Your task to perform on an android device: View the shopping cart on newegg.com. Add "razer blade" to the cart on newegg.com, then select checkout. Image 0: 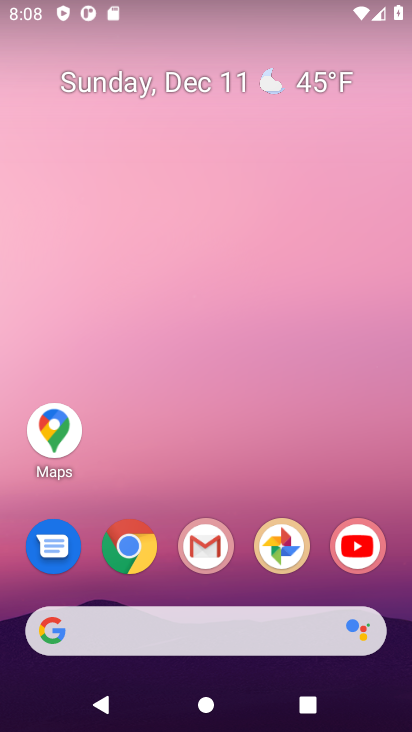
Step 0: click (133, 554)
Your task to perform on an android device: View the shopping cart on newegg.com. Add "razer blade" to the cart on newegg.com, then select checkout. Image 1: 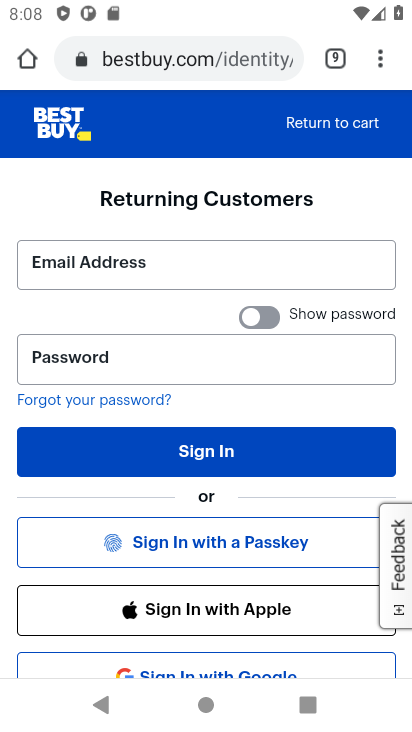
Step 1: click (155, 59)
Your task to perform on an android device: View the shopping cart on newegg.com. Add "razer blade" to the cart on newegg.com, then select checkout. Image 2: 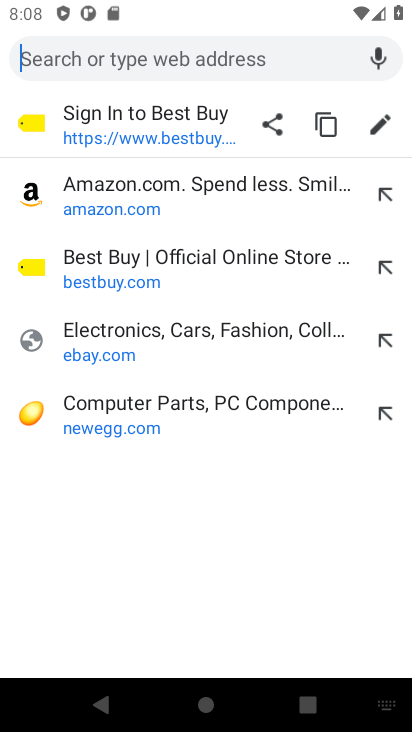
Step 2: click (98, 416)
Your task to perform on an android device: View the shopping cart on newegg.com. Add "razer blade" to the cart on newegg.com, then select checkout. Image 3: 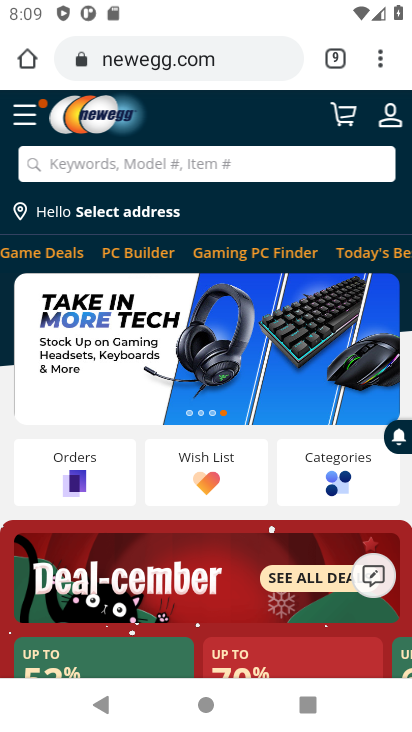
Step 3: click (342, 116)
Your task to perform on an android device: View the shopping cart on newegg.com. Add "razer blade" to the cart on newegg.com, then select checkout. Image 4: 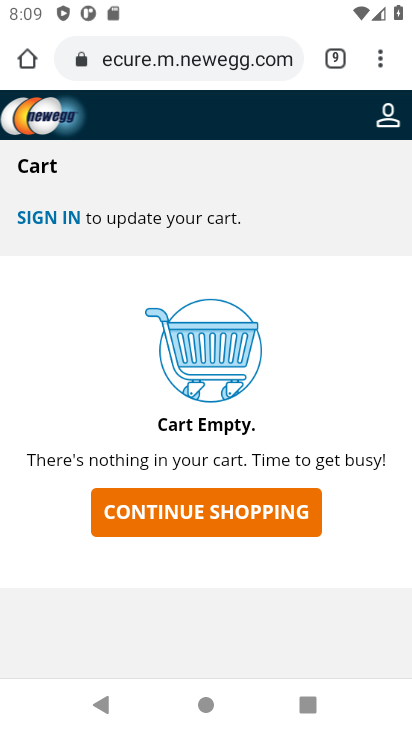
Step 4: click (185, 514)
Your task to perform on an android device: View the shopping cart on newegg.com. Add "razer blade" to the cart on newegg.com, then select checkout. Image 5: 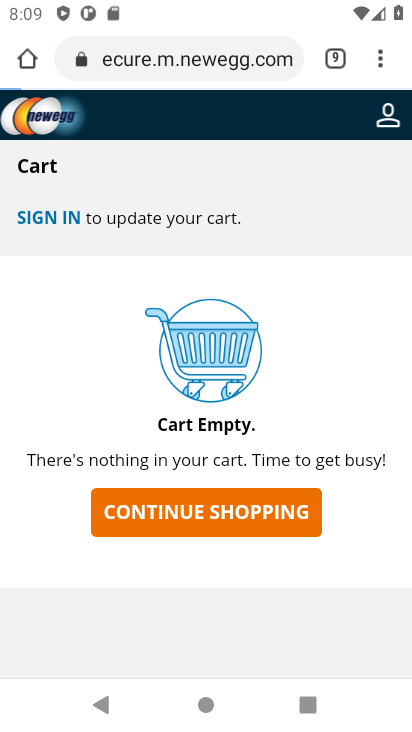
Step 5: click (185, 514)
Your task to perform on an android device: View the shopping cart on newegg.com. Add "razer blade" to the cart on newegg.com, then select checkout. Image 6: 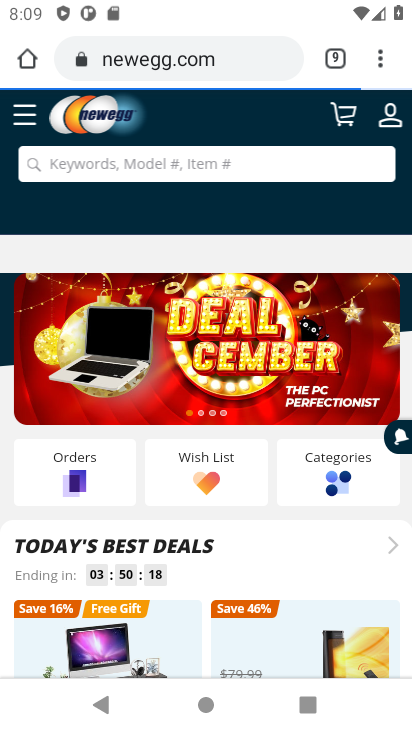
Step 6: click (96, 165)
Your task to perform on an android device: View the shopping cart on newegg.com. Add "razer blade" to the cart on newegg.com, then select checkout. Image 7: 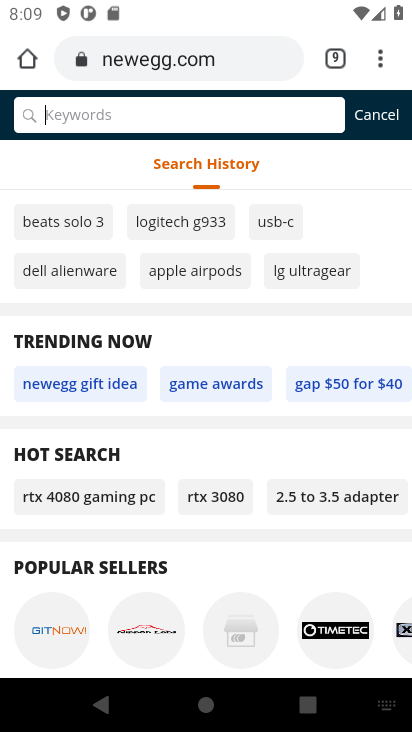
Step 7: type "razer blade"
Your task to perform on an android device: View the shopping cart on newegg.com. Add "razer blade" to the cart on newegg.com, then select checkout. Image 8: 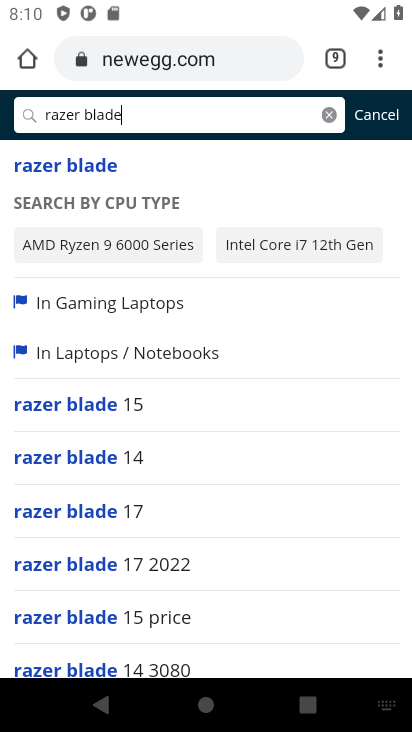
Step 8: click (63, 176)
Your task to perform on an android device: View the shopping cart on newegg.com. Add "razer blade" to the cart on newegg.com, then select checkout. Image 9: 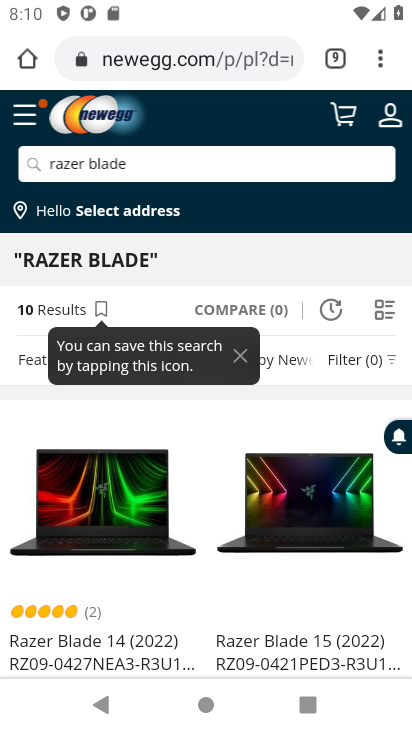
Step 9: drag from (191, 610) to (185, 197)
Your task to perform on an android device: View the shopping cart on newegg.com. Add "razer blade" to the cart on newegg.com, then select checkout. Image 10: 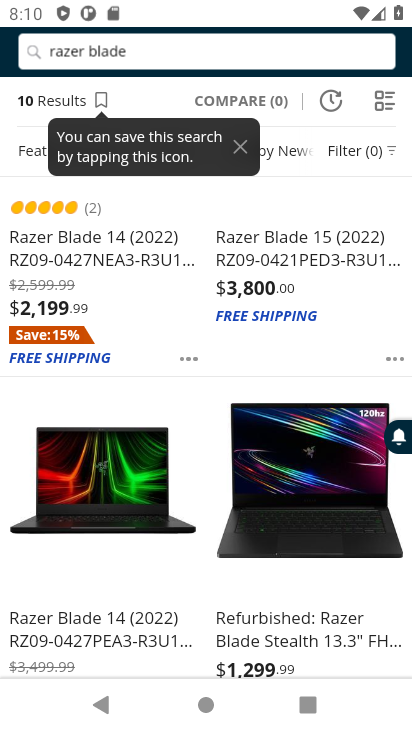
Step 10: click (70, 249)
Your task to perform on an android device: View the shopping cart on newegg.com. Add "razer blade" to the cart on newegg.com, then select checkout. Image 11: 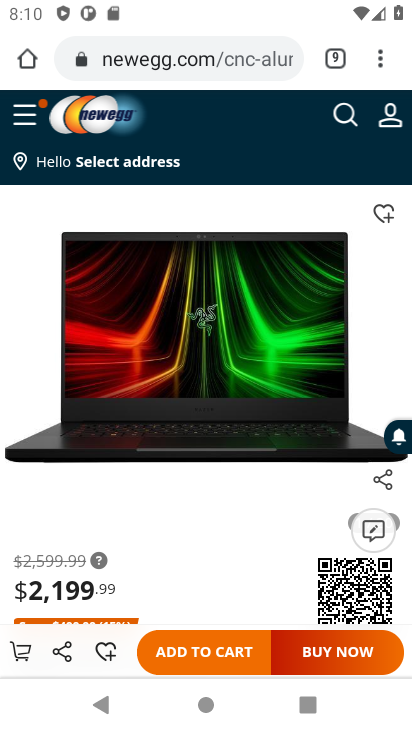
Step 11: click (202, 651)
Your task to perform on an android device: View the shopping cart on newegg.com. Add "razer blade" to the cart on newegg.com, then select checkout. Image 12: 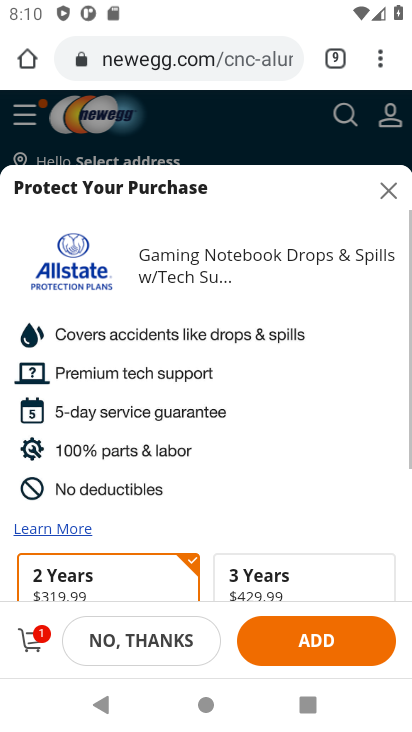
Step 12: click (33, 643)
Your task to perform on an android device: View the shopping cart on newegg.com. Add "razer blade" to the cart on newegg.com, then select checkout. Image 13: 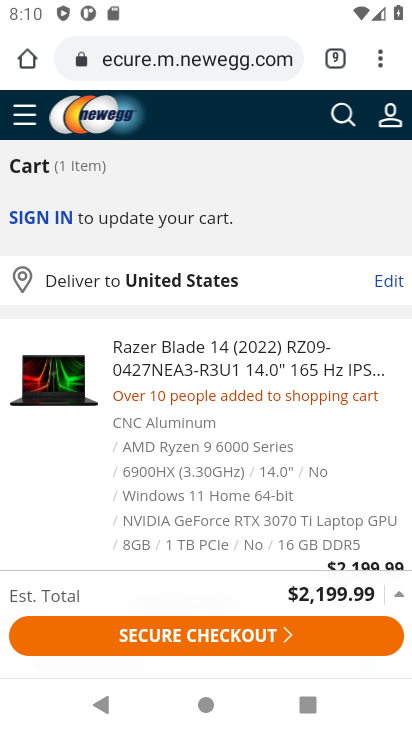
Step 13: click (173, 641)
Your task to perform on an android device: View the shopping cart on newegg.com. Add "razer blade" to the cart on newegg.com, then select checkout. Image 14: 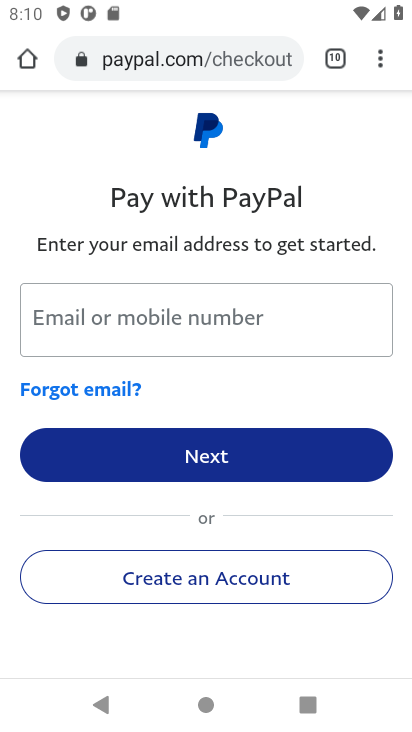
Step 14: task complete